Your task to perform on an android device: change notifications settings Image 0: 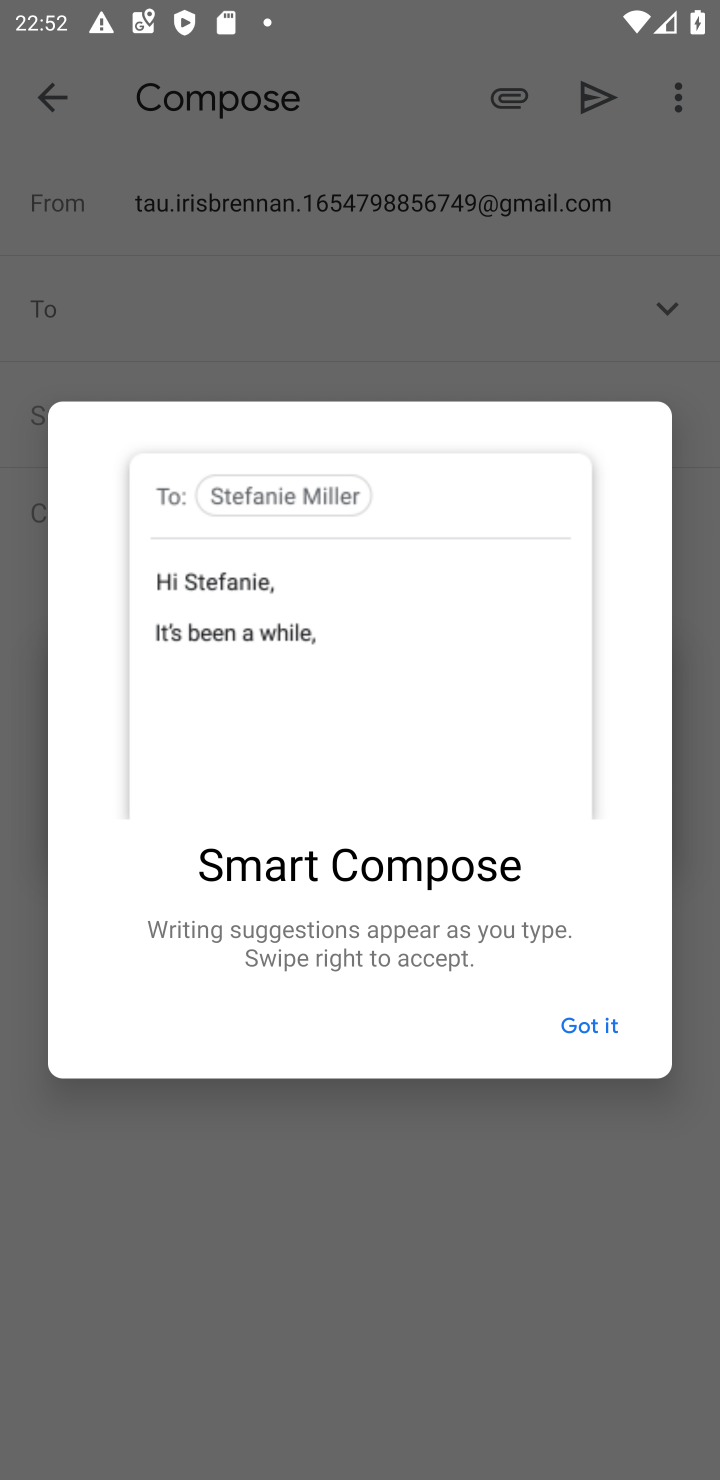
Step 0: press home button
Your task to perform on an android device: change notifications settings Image 1: 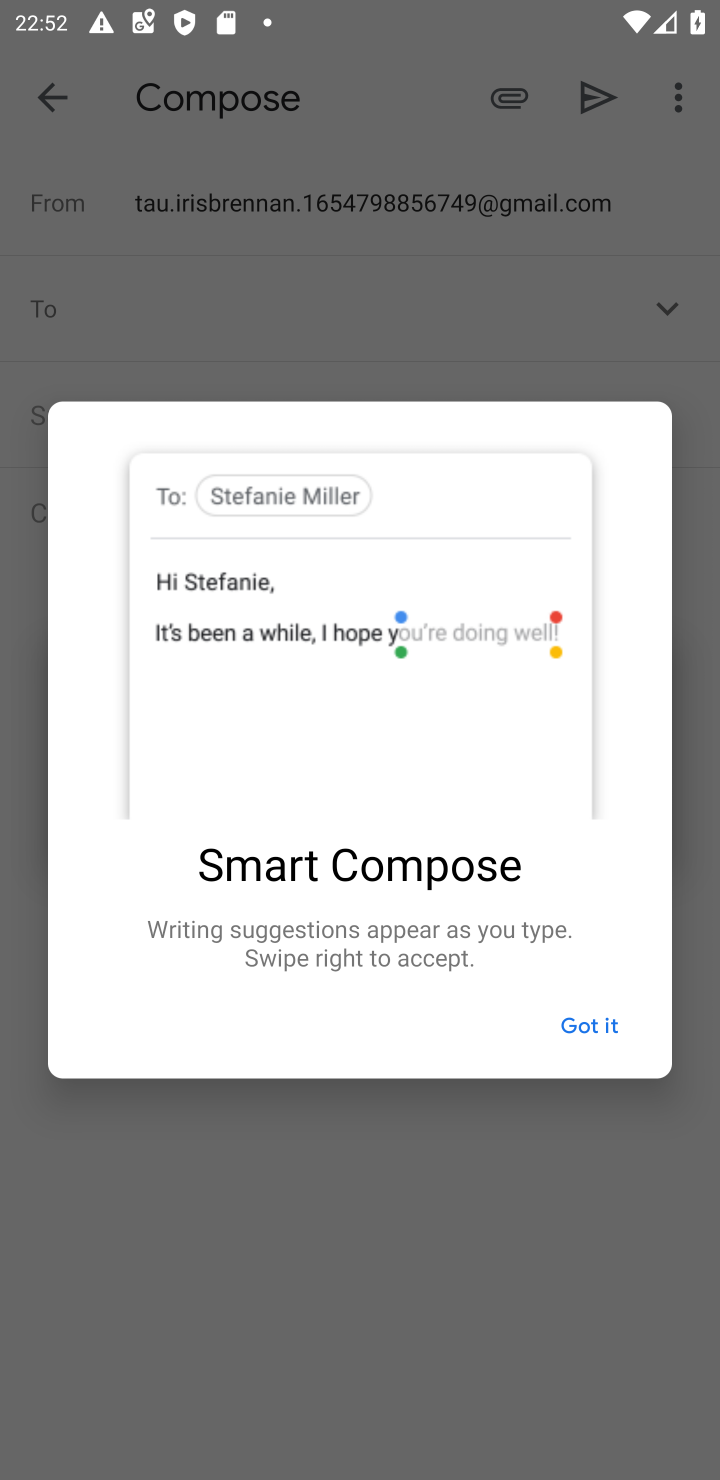
Step 1: drag from (450, 1260) to (425, 137)
Your task to perform on an android device: change notifications settings Image 2: 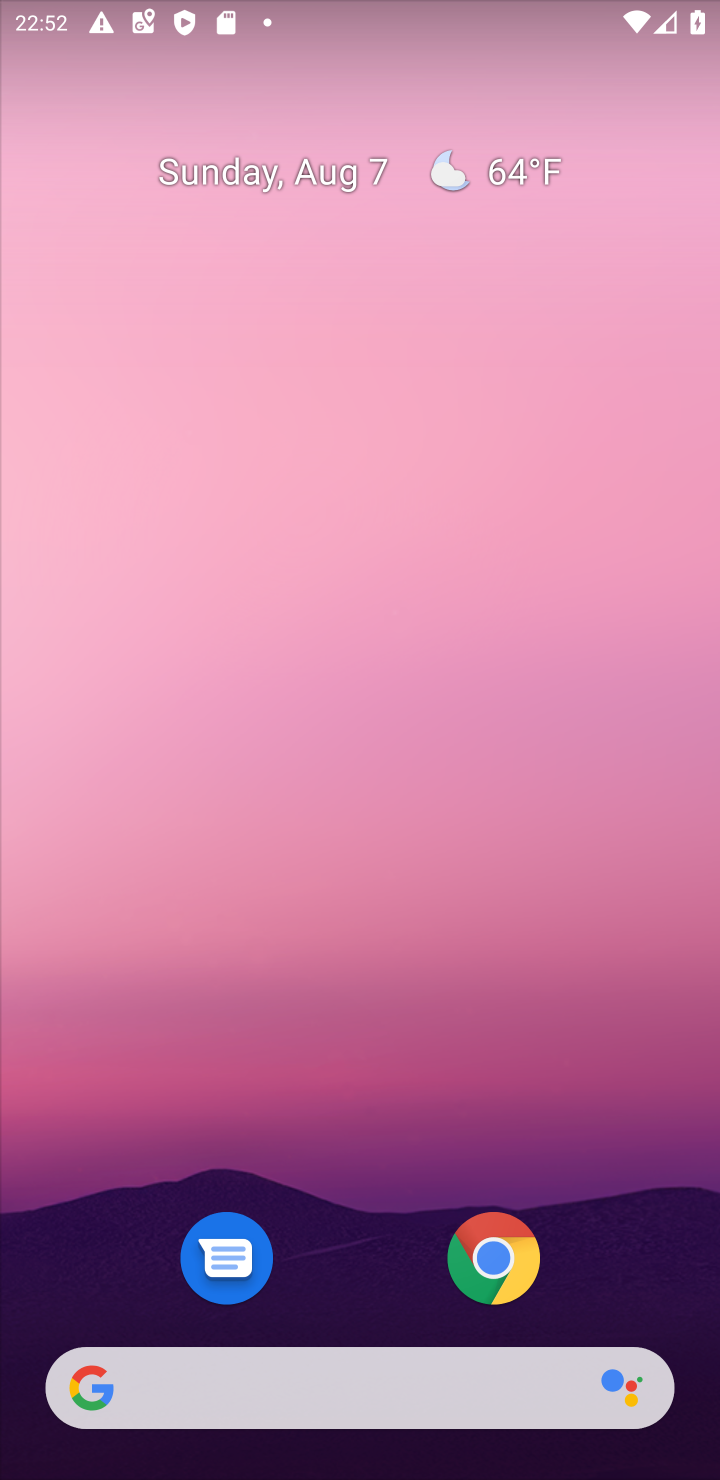
Step 2: drag from (331, 945) to (300, 26)
Your task to perform on an android device: change notifications settings Image 3: 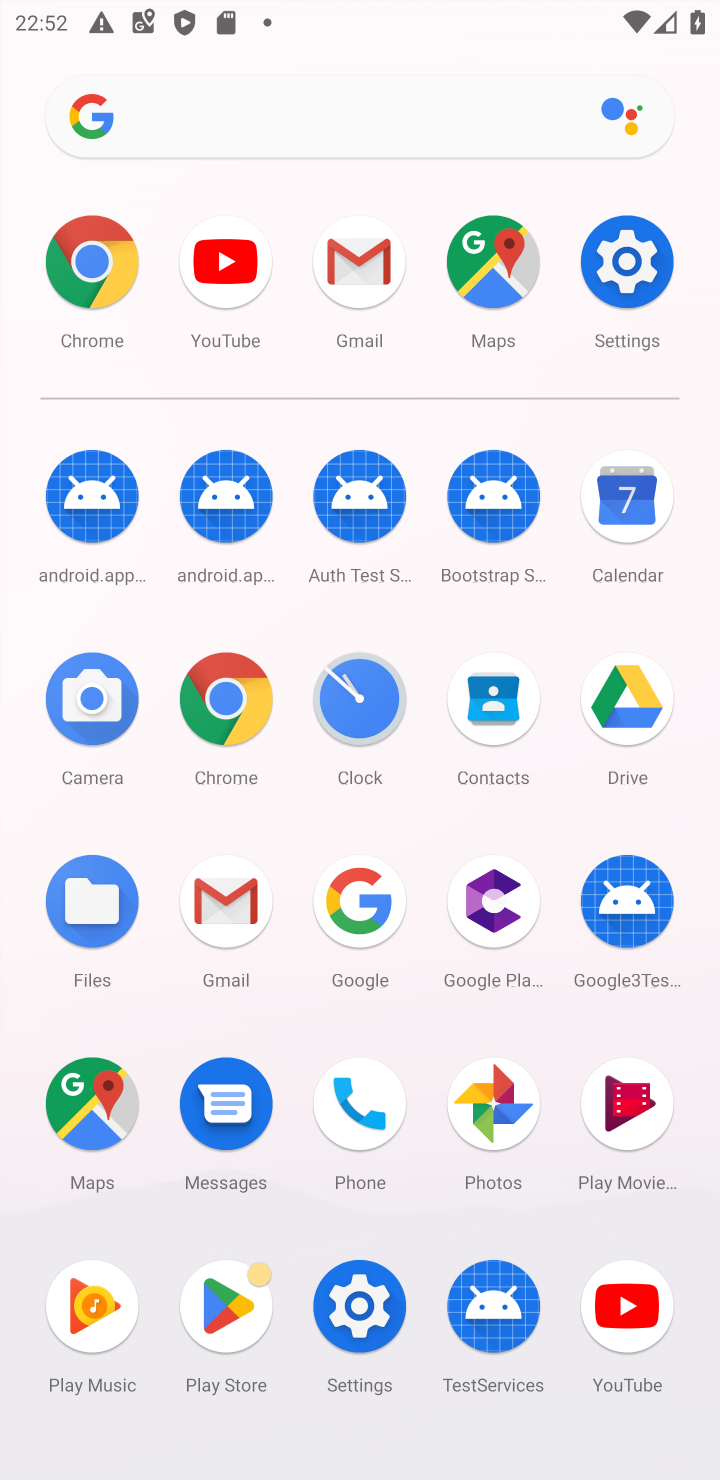
Step 3: click (619, 258)
Your task to perform on an android device: change notifications settings Image 4: 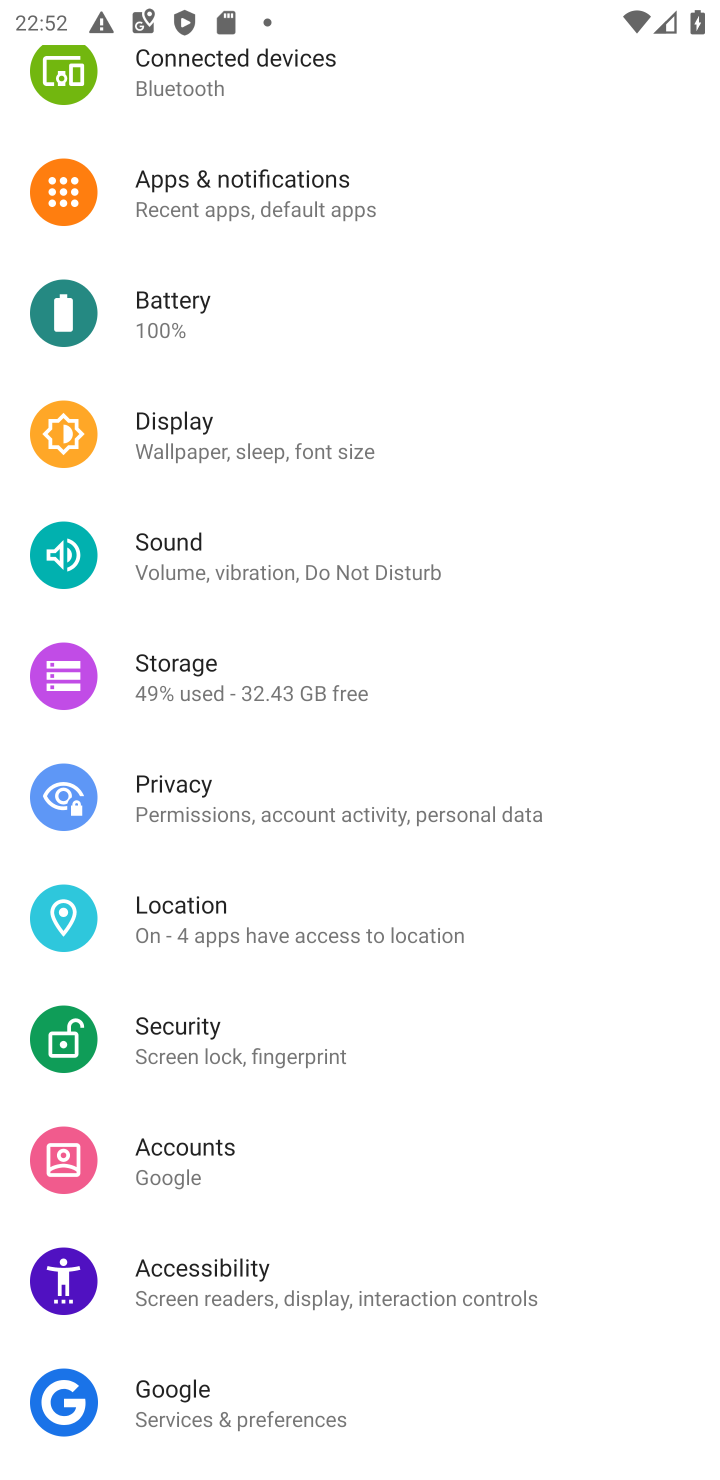
Step 4: drag from (295, 390) to (339, 549)
Your task to perform on an android device: change notifications settings Image 5: 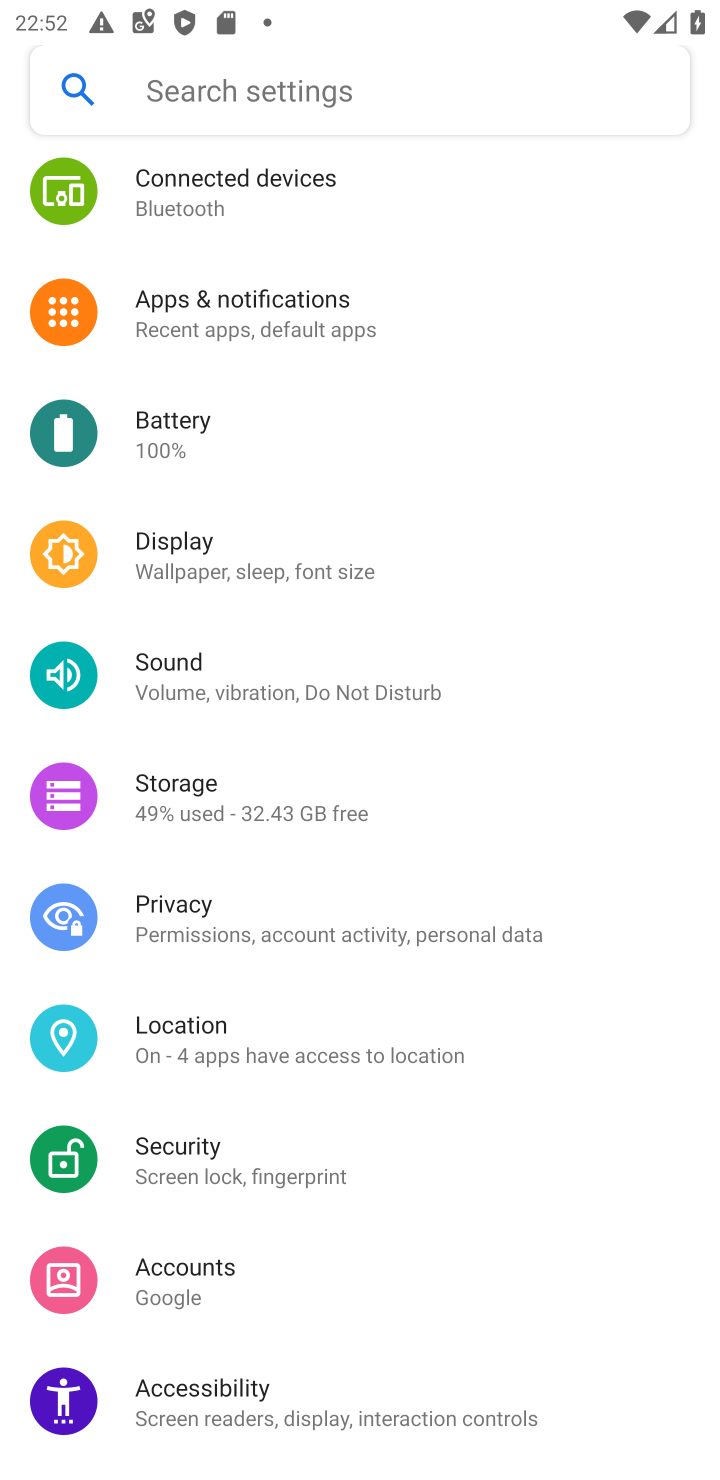
Step 5: click (195, 296)
Your task to perform on an android device: change notifications settings Image 6: 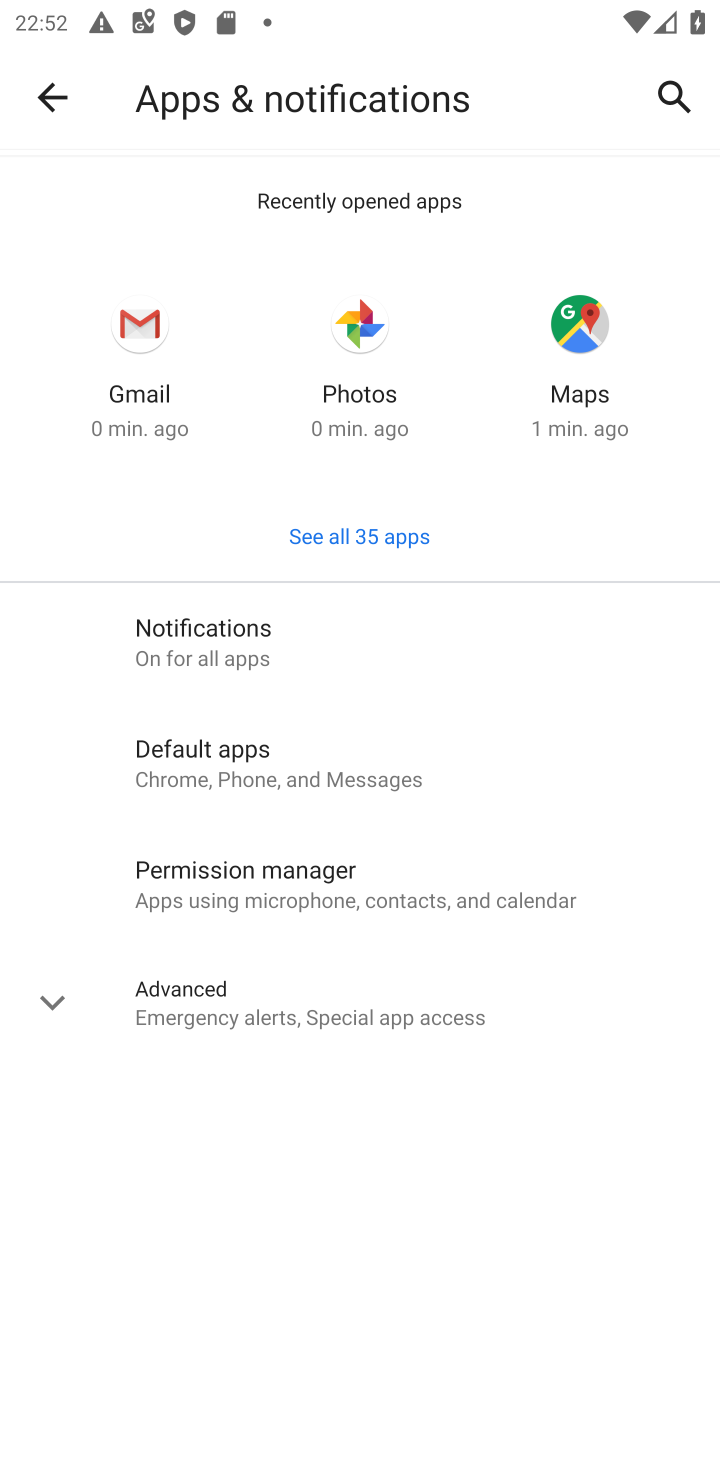
Step 6: click (200, 628)
Your task to perform on an android device: change notifications settings Image 7: 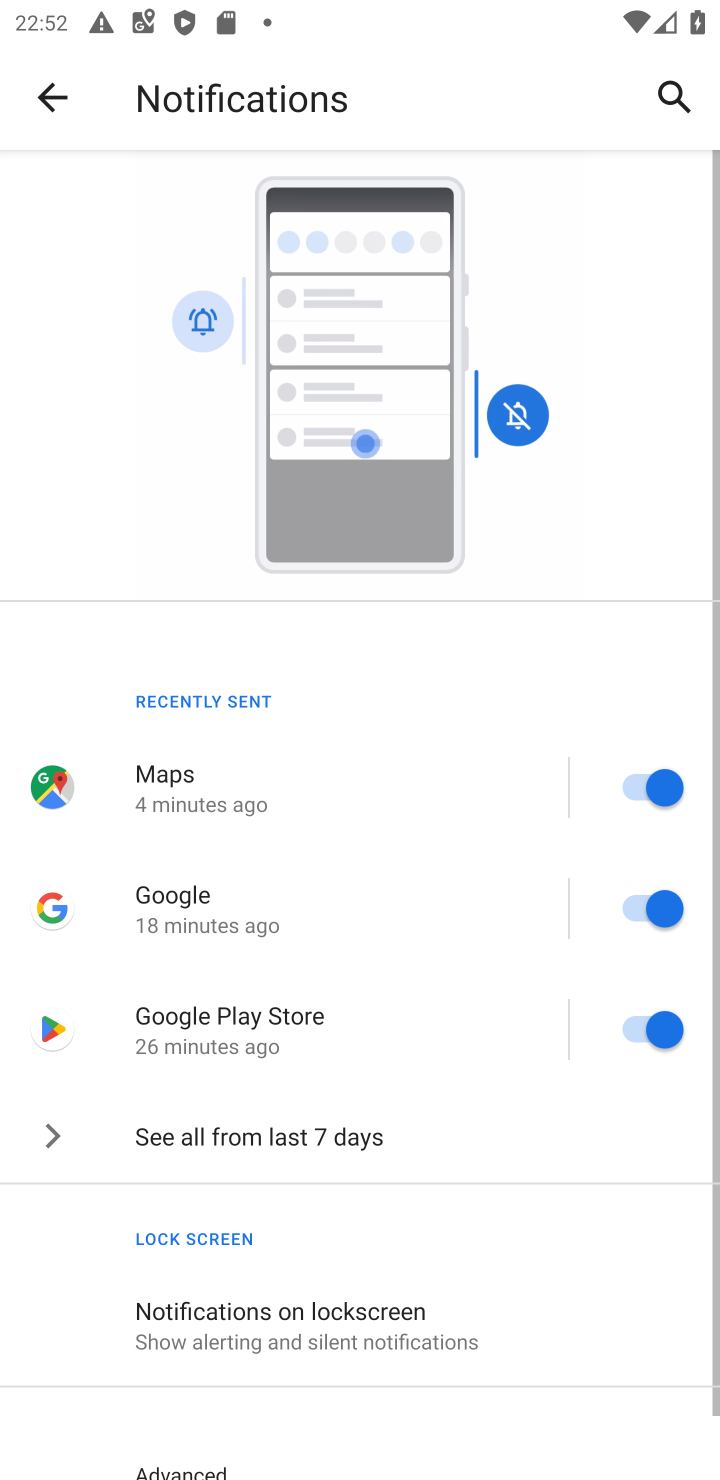
Step 7: task complete